Your task to perform on an android device: set the stopwatch Image 0: 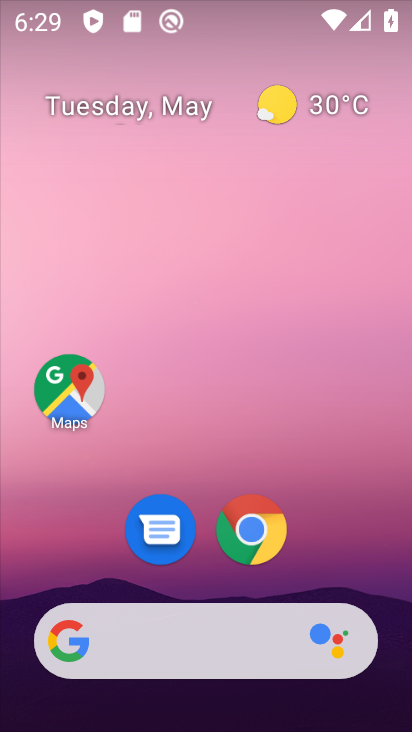
Step 0: drag from (382, 692) to (325, 153)
Your task to perform on an android device: set the stopwatch Image 1: 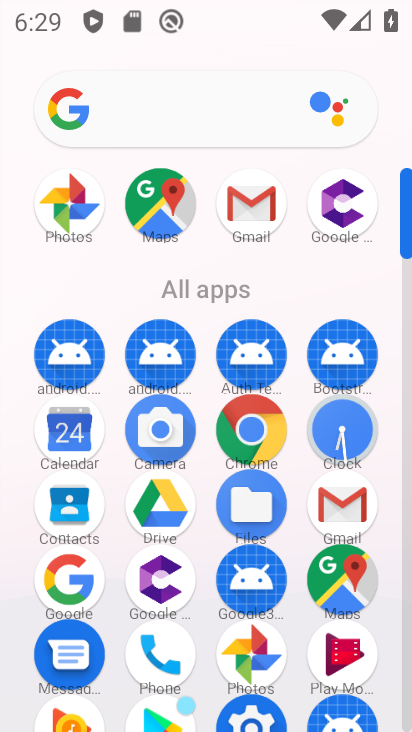
Step 1: click (354, 441)
Your task to perform on an android device: set the stopwatch Image 2: 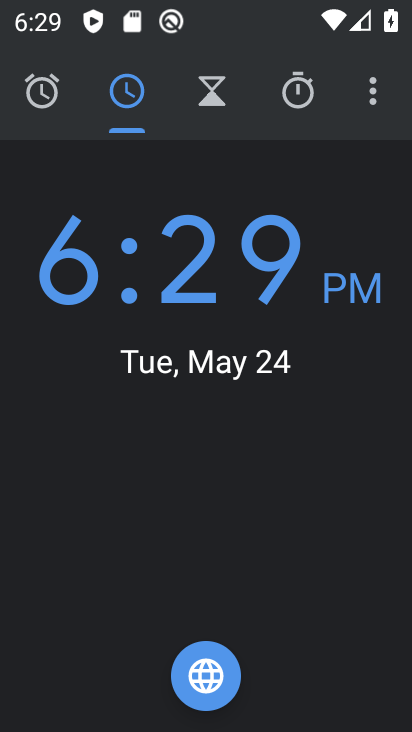
Step 2: click (285, 92)
Your task to perform on an android device: set the stopwatch Image 3: 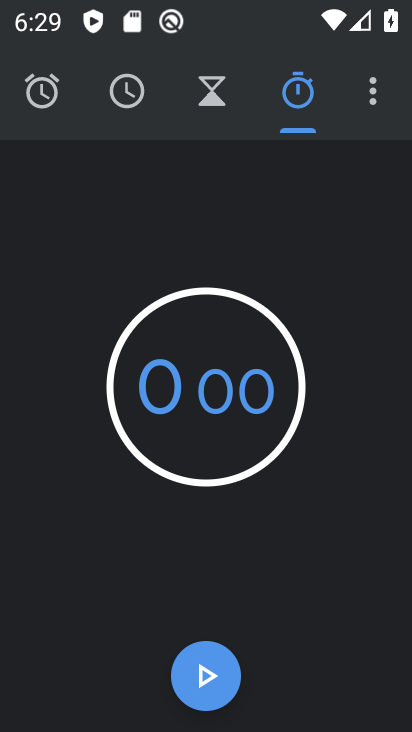
Step 3: task complete